Your task to perform on an android device: find which apps use the phone's location Image 0: 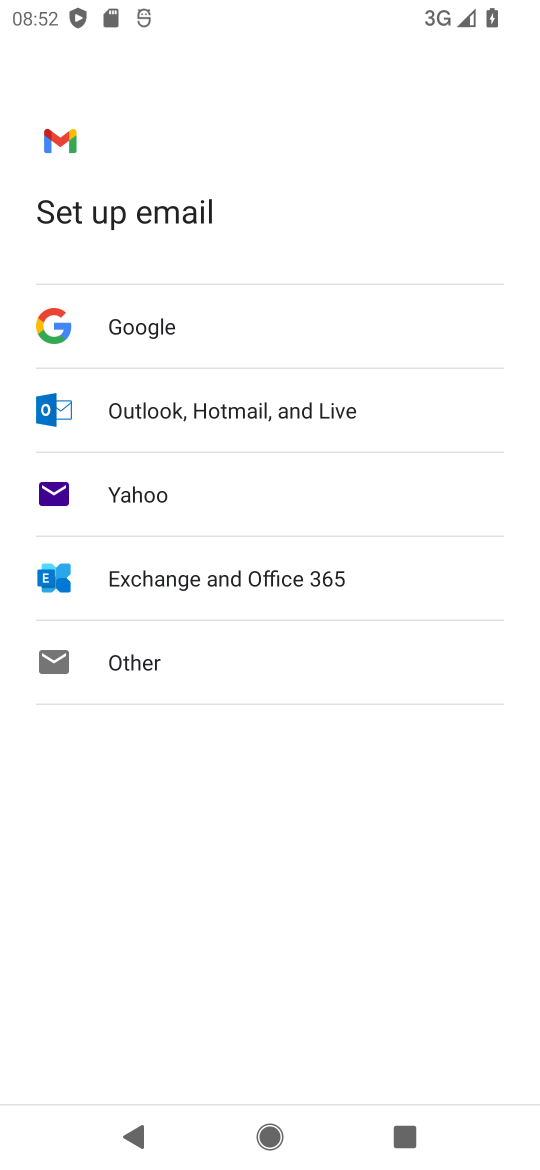
Step 0: press home button
Your task to perform on an android device: find which apps use the phone's location Image 1: 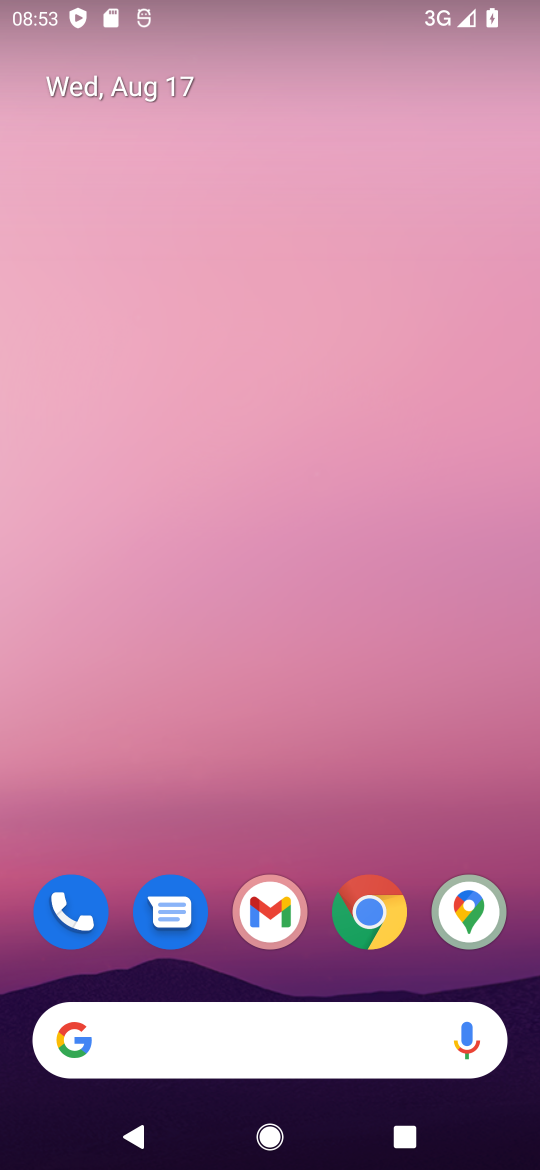
Step 1: drag from (320, 678) to (357, 420)
Your task to perform on an android device: find which apps use the phone's location Image 2: 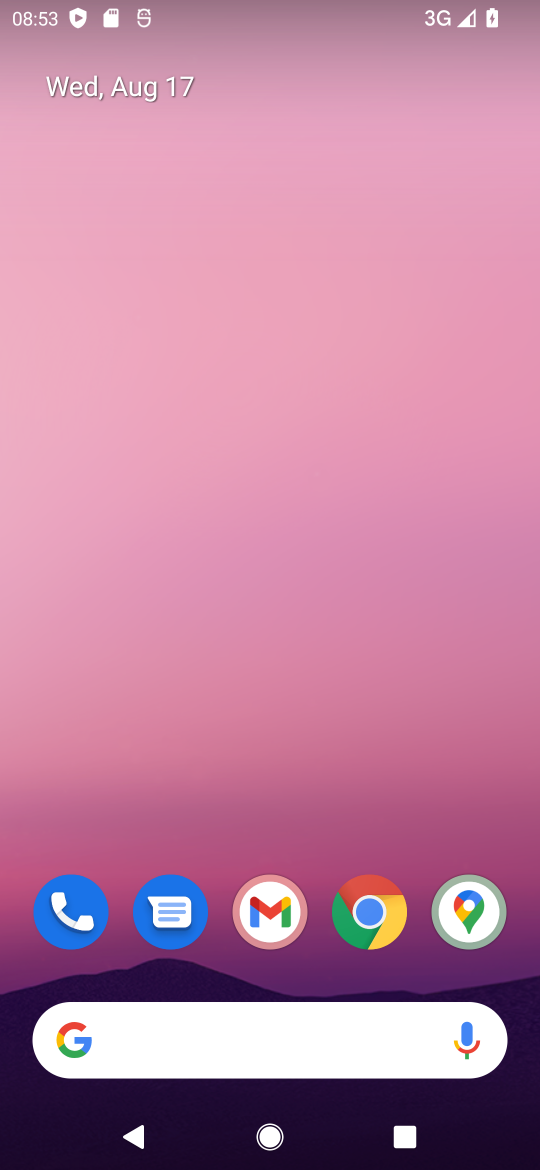
Step 2: drag from (267, 999) to (280, 249)
Your task to perform on an android device: find which apps use the phone's location Image 3: 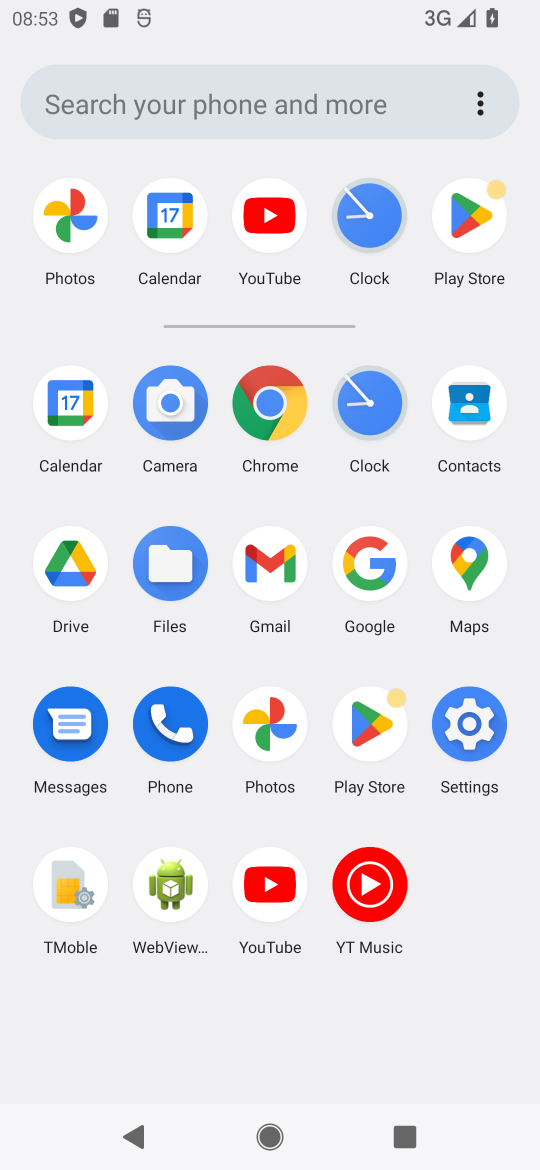
Step 3: click (456, 725)
Your task to perform on an android device: find which apps use the phone's location Image 4: 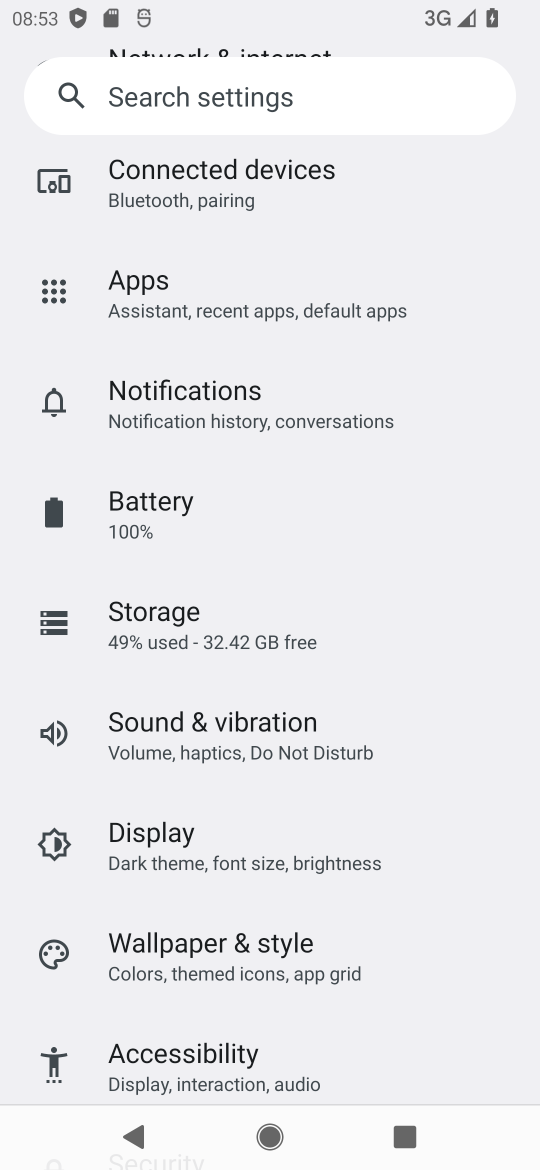
Step 4: drag from (222, 942) to (245, 385)
Your task to perform on an android device: find which apps use the phone's location Image 5: 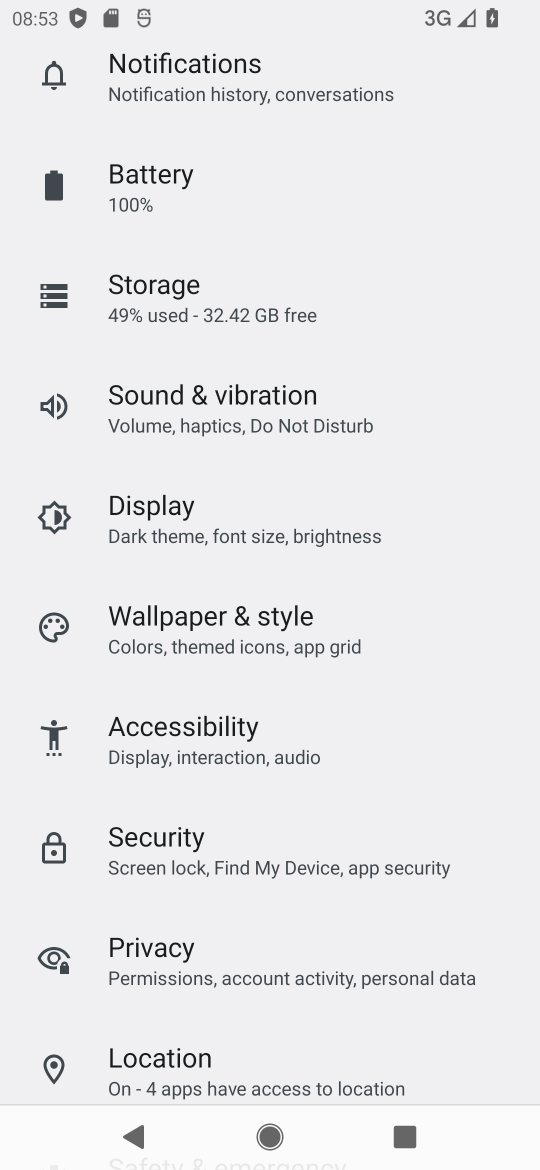
Step 5: click (177, 1082)
Your task to perform on an android device: find which apps use the phone's location Image 6: 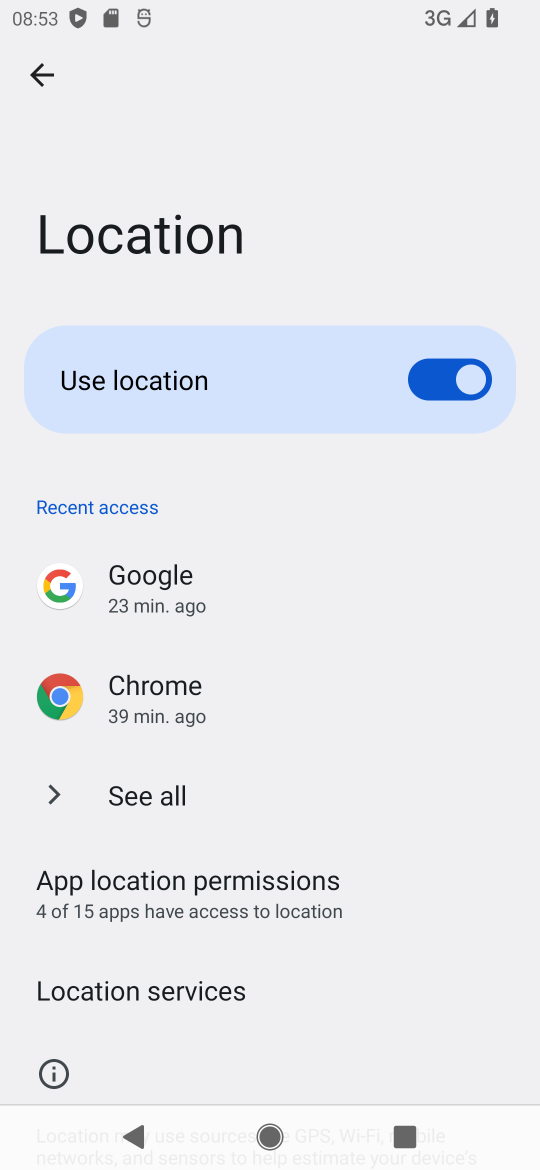
Step 6: click (146, 798)
Your task to perform on an android device: find which apps use the phone's location Image 7: 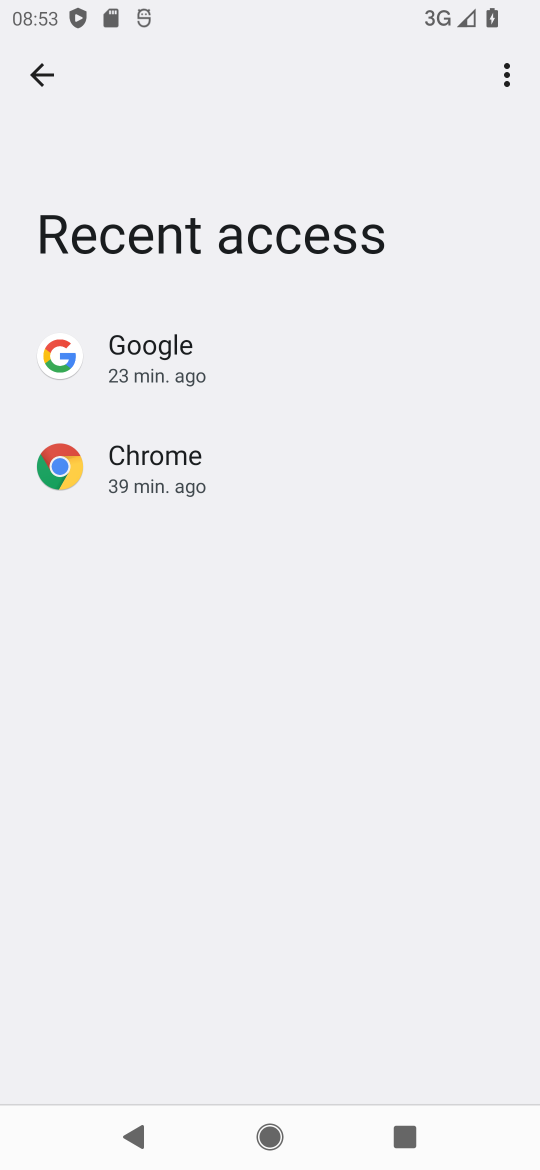
Step 7: click (45, 76)
Your task to perform on an android device: find which apps use the phone's location Image 8: 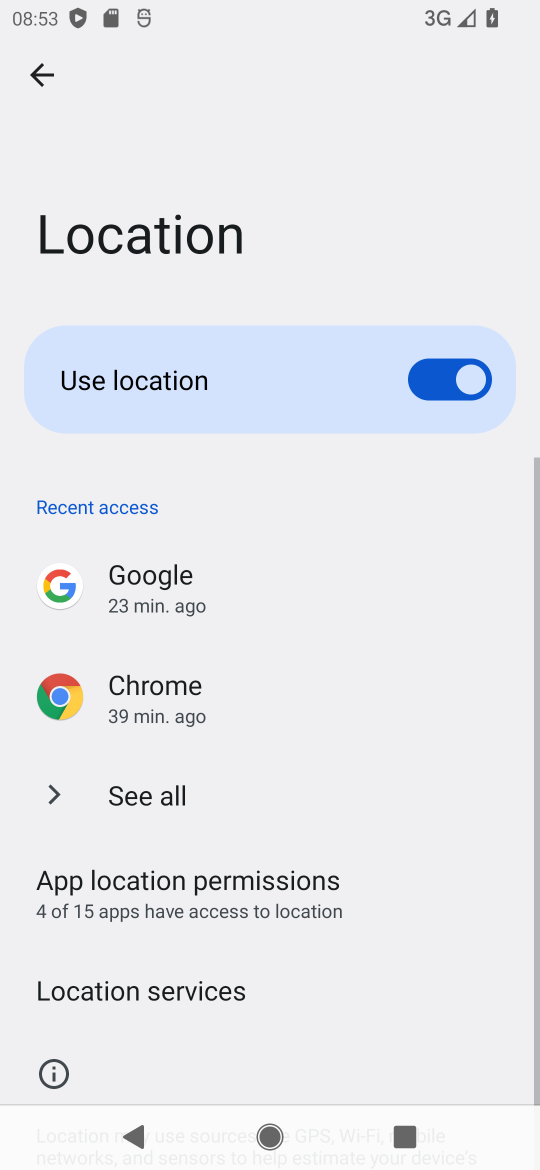
Step 8: click (205, 902)
Your task to perform on an android device: find which apps use the phone's location Image 9: 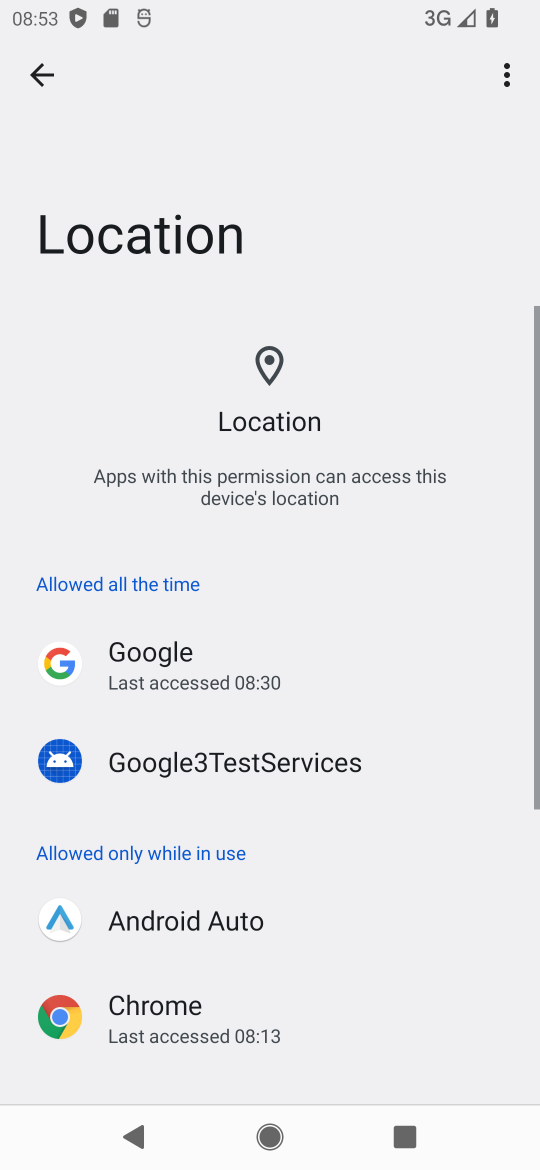
Step 9: task complete